Your task to perform on an android device: Look up the best rated hair dryer on Walmart. Image 0: 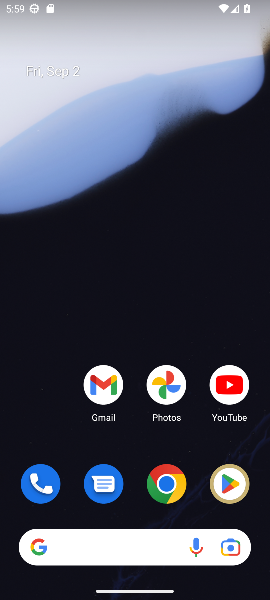
Step 0: click (176, 496)
Your task to perform on an android device: Look up the best rated hair dryer on Walmart. Image 1: 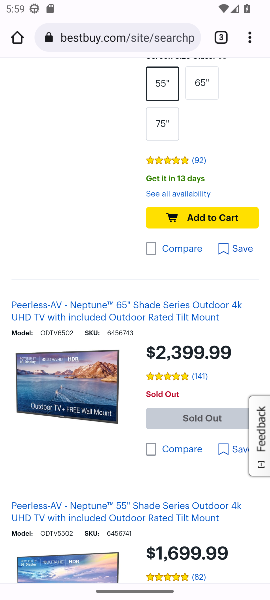
Step 1: click (133, 29)
Your task to perform on an android device: Look up the best rated hair dryer on Walmart. Image 2: 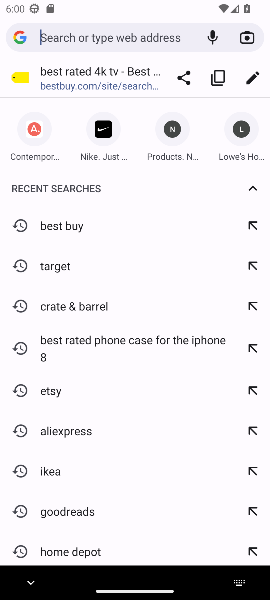
Step 2: type " Walmart"
Your task to perform on an android device: Look up the best rated hair dryer on Walmart. Image 3: 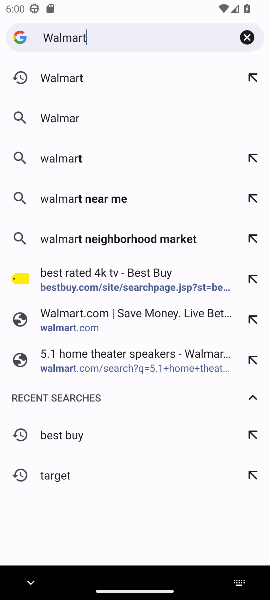
Step 3: press enter
Your task to perform on an android device: Look up the best rated hair dryer on Walmart. Image 4: 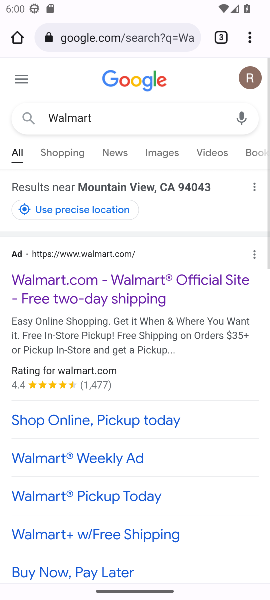
Step 4: drag from (199, 552) to (203, 267)
Your task to perform on an android device: Look up the best rated hair dryer on Walmart. Image 5: 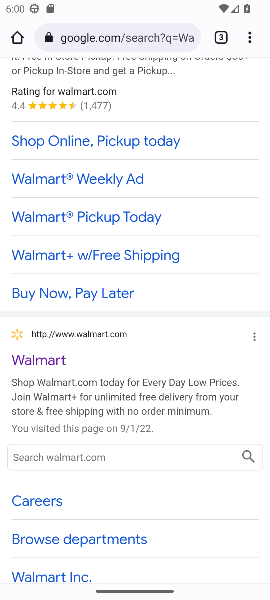
Step 5: click (55, 355)
Your task to perform on an android device: Look up the best rated hair dryer on Walmart. Image 6: 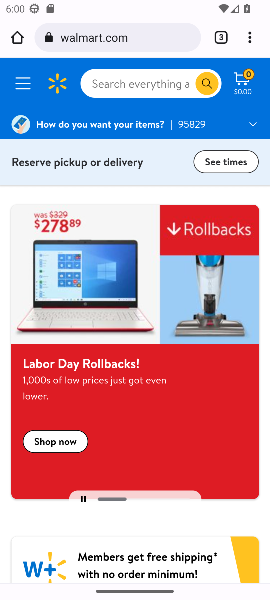
Step 6: click (152, 85)
Your task to perform on an android device: Look up the best rated hair dryer on Walmart. Image 7: 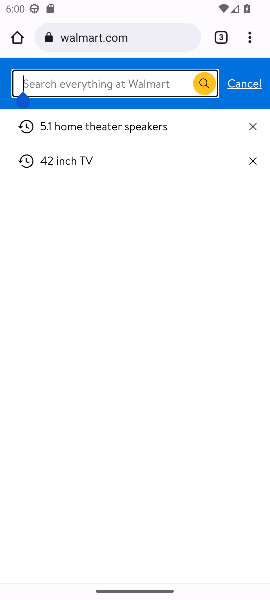
Step 7: type "best rated hair dryer"
Your task to perform on an android device: Look up the best rated hair dryer on Walmart. Image 8: 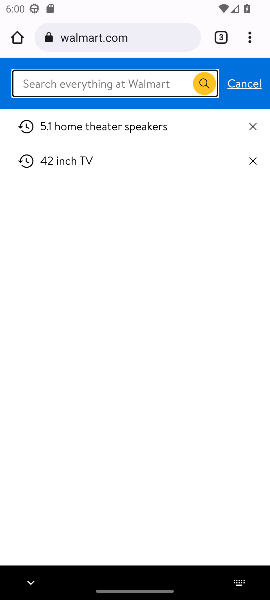
Step 8: press enter
Your task to perform on an android device: Look up the best rated hair dryer on Walmart. Image 9: 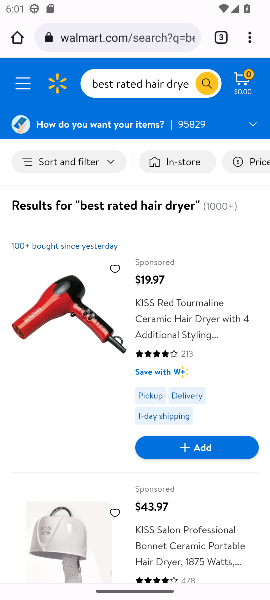
Step 9: task complete